Your task to perform on an android device: Go to ESPN.com Image 0: 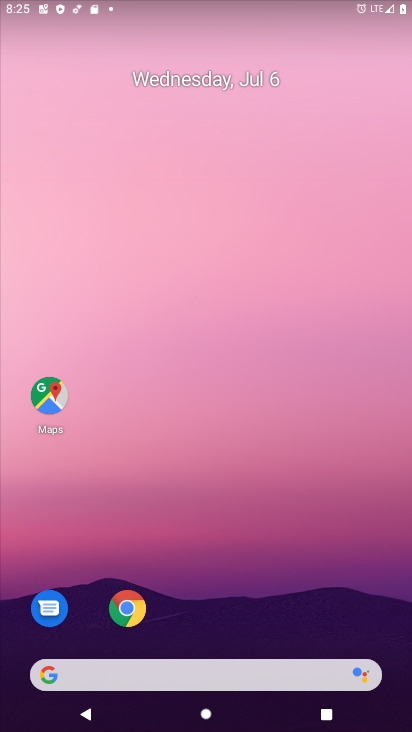
Step 0: drag from (358, 609) to (4, 133)
Your task to perform on an android device: Go to ESPN.com Image 1: 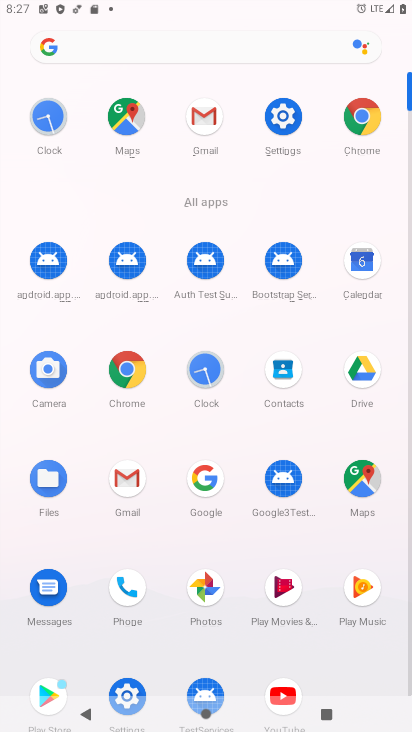
Step 1: click (208, 496)
Your task to perform on an android device: Go to ESPN.com Image 2: 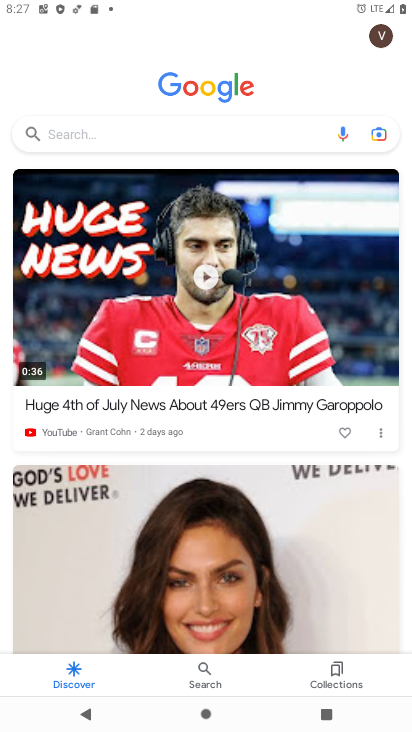
Step 2: click (107, 123)
Your task to perform on an android device: Go to ESPN.com Image 3: 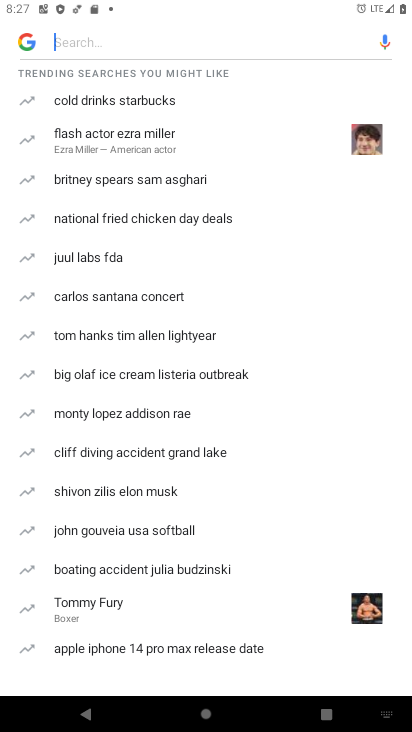
Step 3: type "espn.com"
Your task to perform on an android device: Go to ESPN.com Image 4: 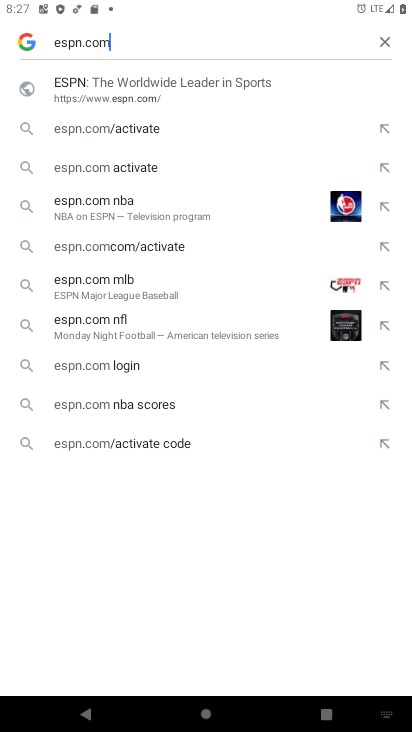
Step 4: click (134, 96)
Your task to perform on an android device: Go to ESPN.com Image 5: 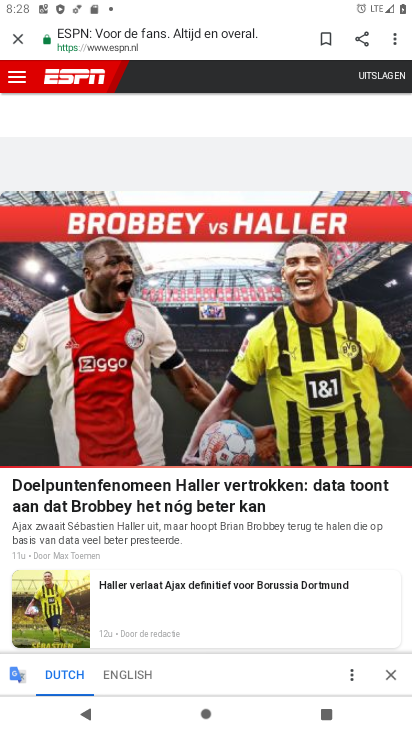
Step 5: task complete